Your task to perform on an android device: What is the news today? Image 0: 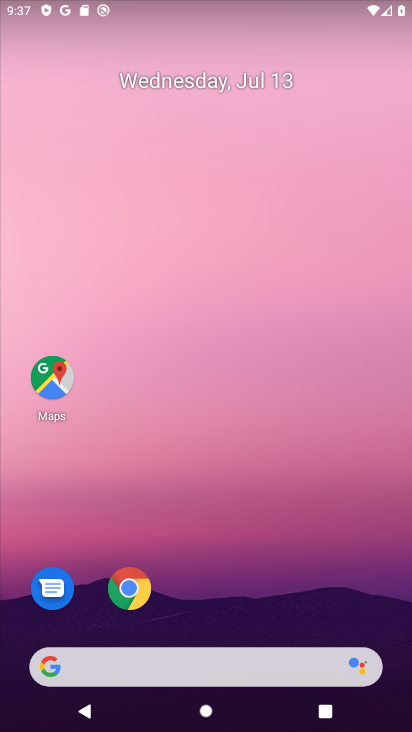
Step 0: drag from (239, 600) to (230, 89)
Your task to perform on an android device: What is the news today? Image 1: 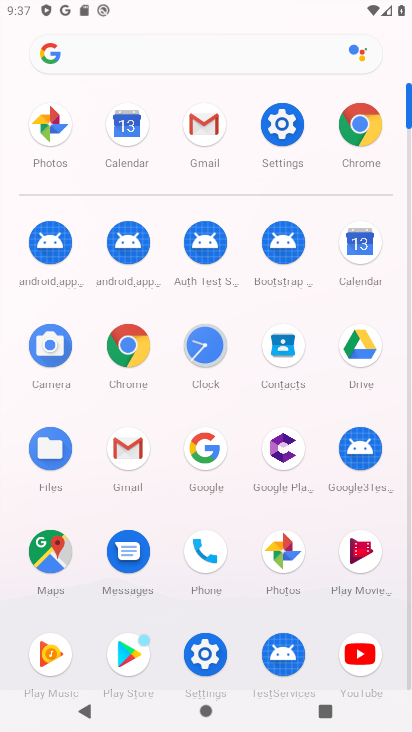
Step 1: click (202, 443)
Your task to perform on an android device: What is the news today? Image 2: 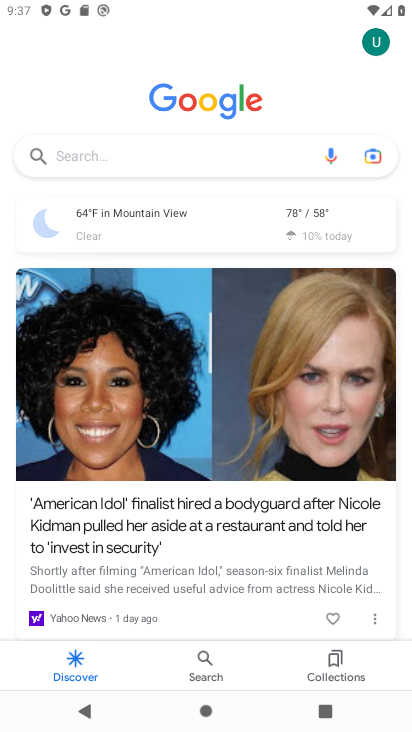
Step 2: click (139, 155)
Your task to perform on an android device: What is the news today? Image 3: 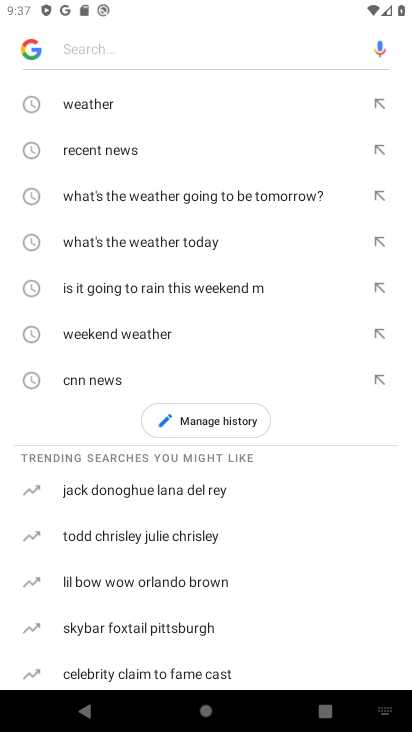
Step 3: type "news today"
Your task to perform on an android device: What is the news today? Image 4: 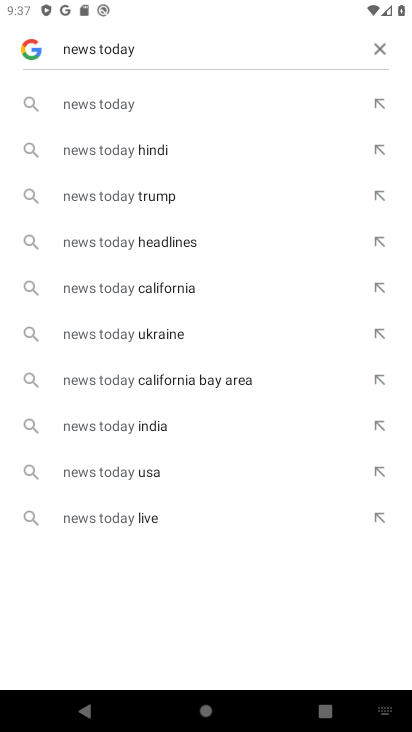
Step 4: click (150, 96)
Your task to perform on an android device: What is the news today? Image 5: 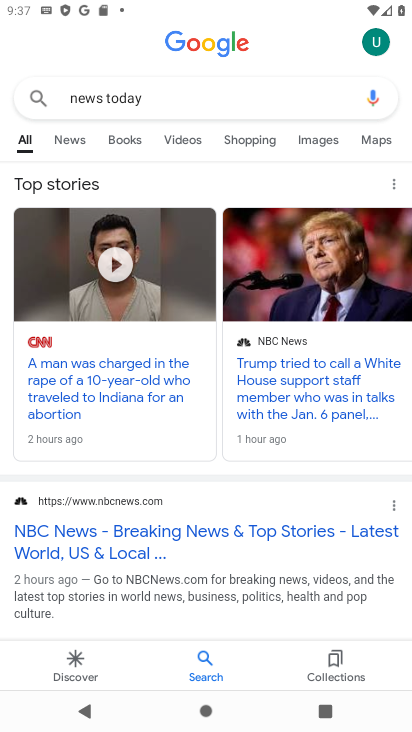
Step 5: task complete